Your task to perform on an android device: Clear the cart on ebay. Add "bose soundlink mini" to the cart on ebay, then select checkout. Image 0: 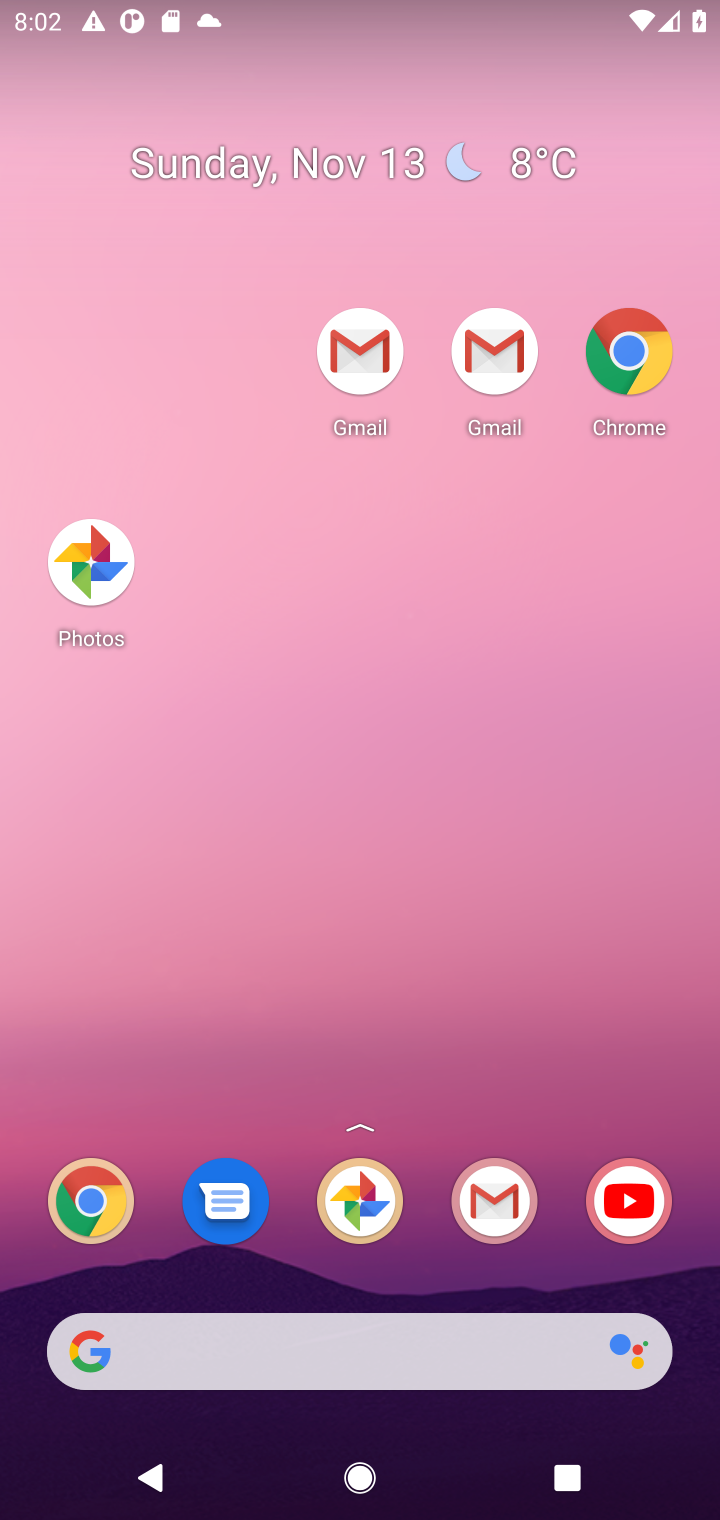
Step 0: drag from (440, 1277) to (599, 19)
Your task to perform on an android device: Clear the cart on ebay. Add "bose soundlink mini" to the cart on ebay, then select checkout. Image 1: 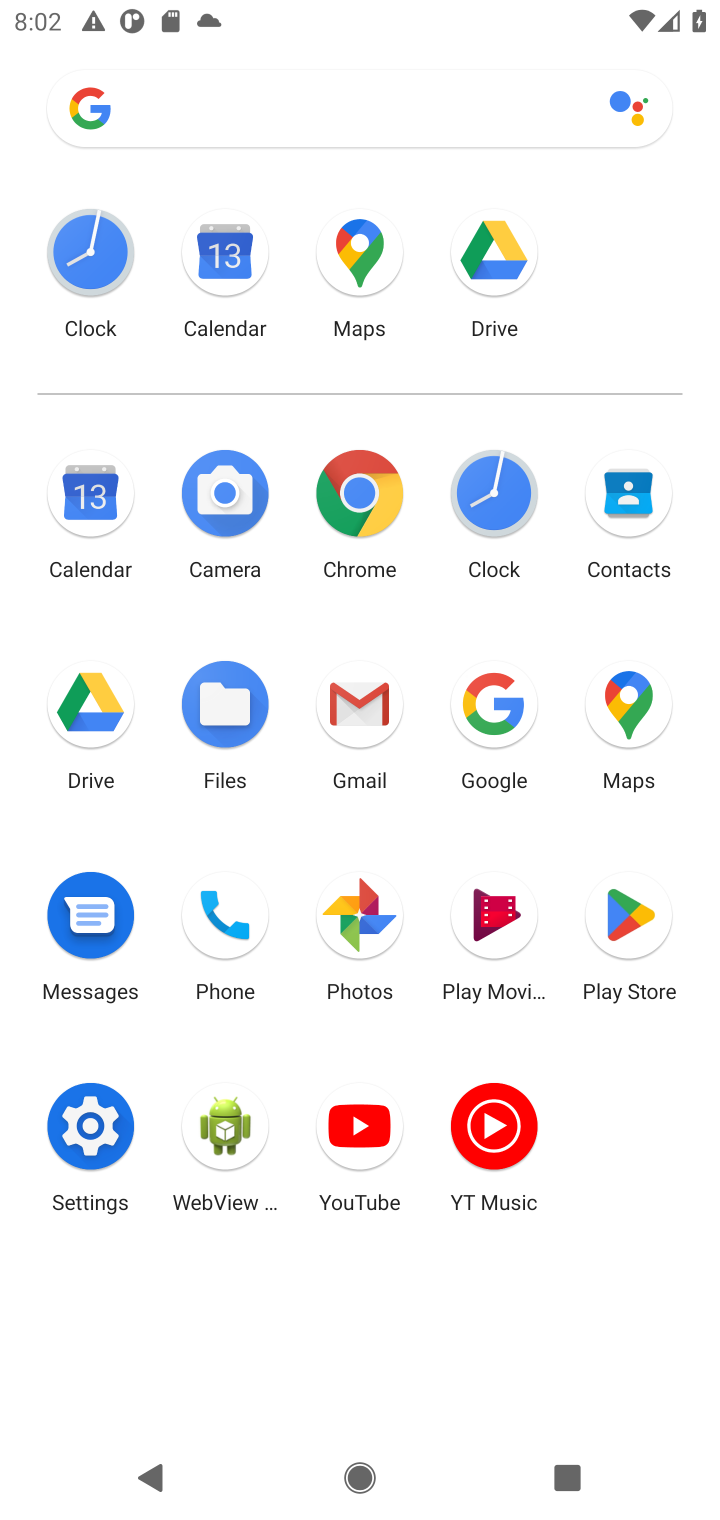
Step 1: click (338, 492)
Your task to perform on an android device: Clear the cart on ebay. Add "bose soundlink mini" to the cart on ebay, then select checkout. Image 2: 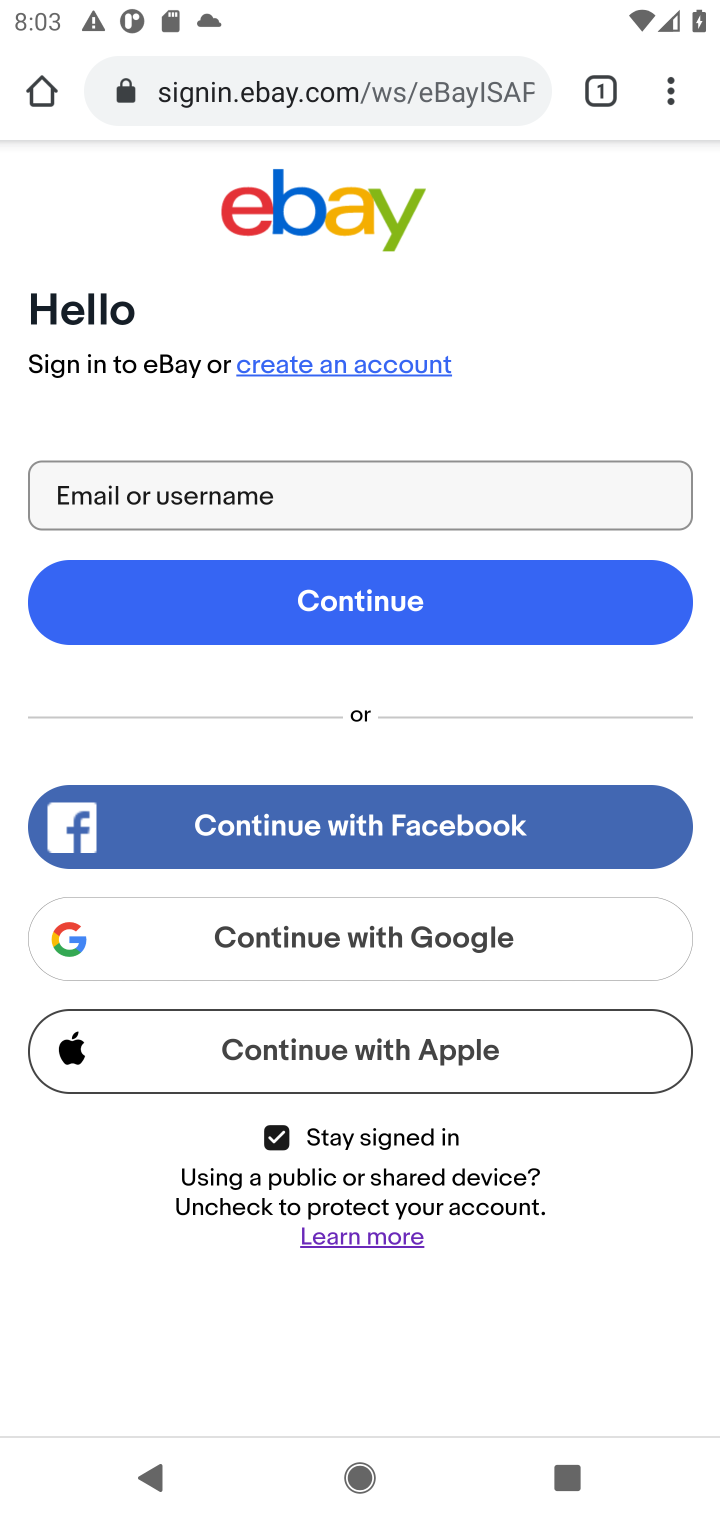
Step 2: click (454, 96)
Your task to perform on an android device: Clear the cart on ebay. Add "bose soundlink mini" to the cart on ebay, then select checkout. Image 3: 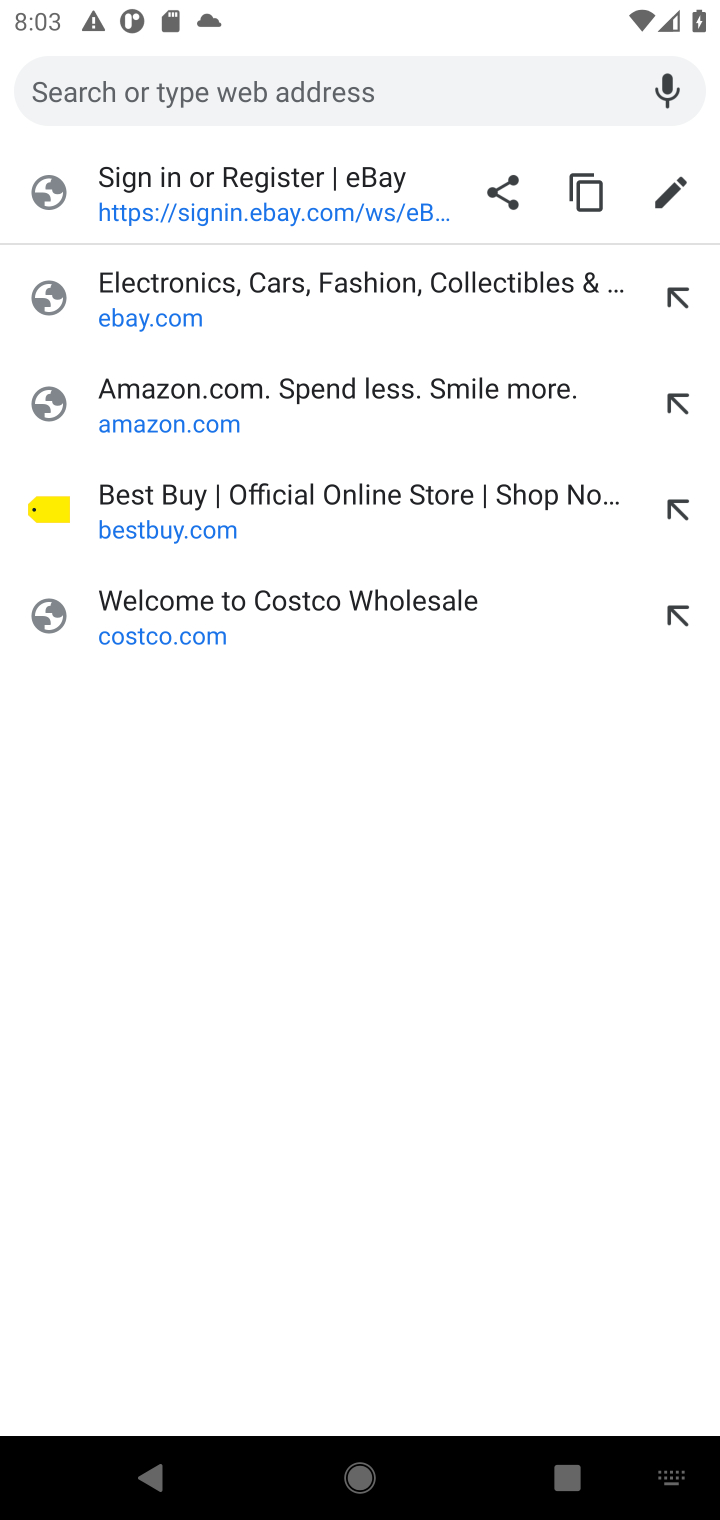
Step 3: type "ebay.com"
Your task to perform on an android device: Clear the cart on ebay. Add "bose soundlink mini" to the cart on ebay, then select checkout. Image 4: 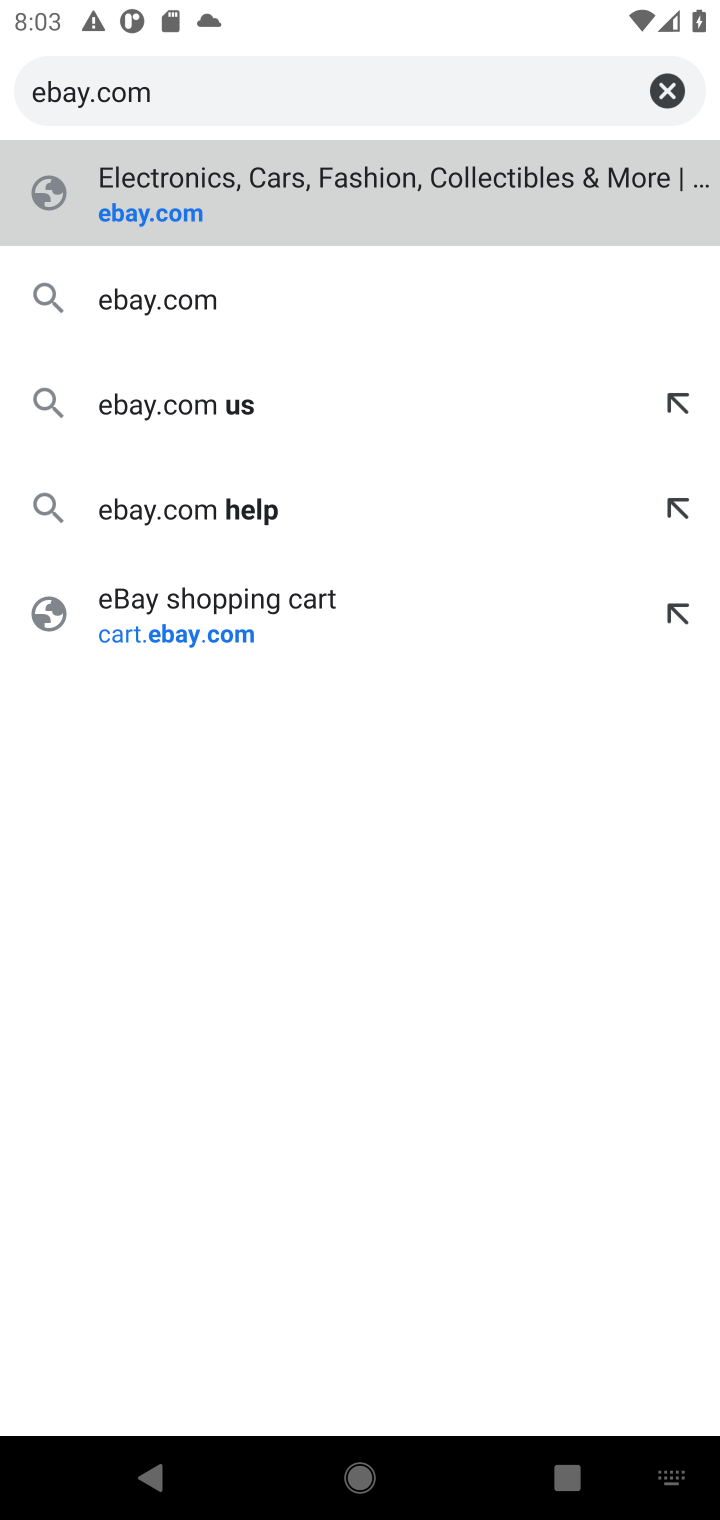
Step 4: press enter
Your task to perform on an android device: Clear the cart on ebay. Add "bose soundlink mini" to the cart on ebay, then select checkout. Image 5: 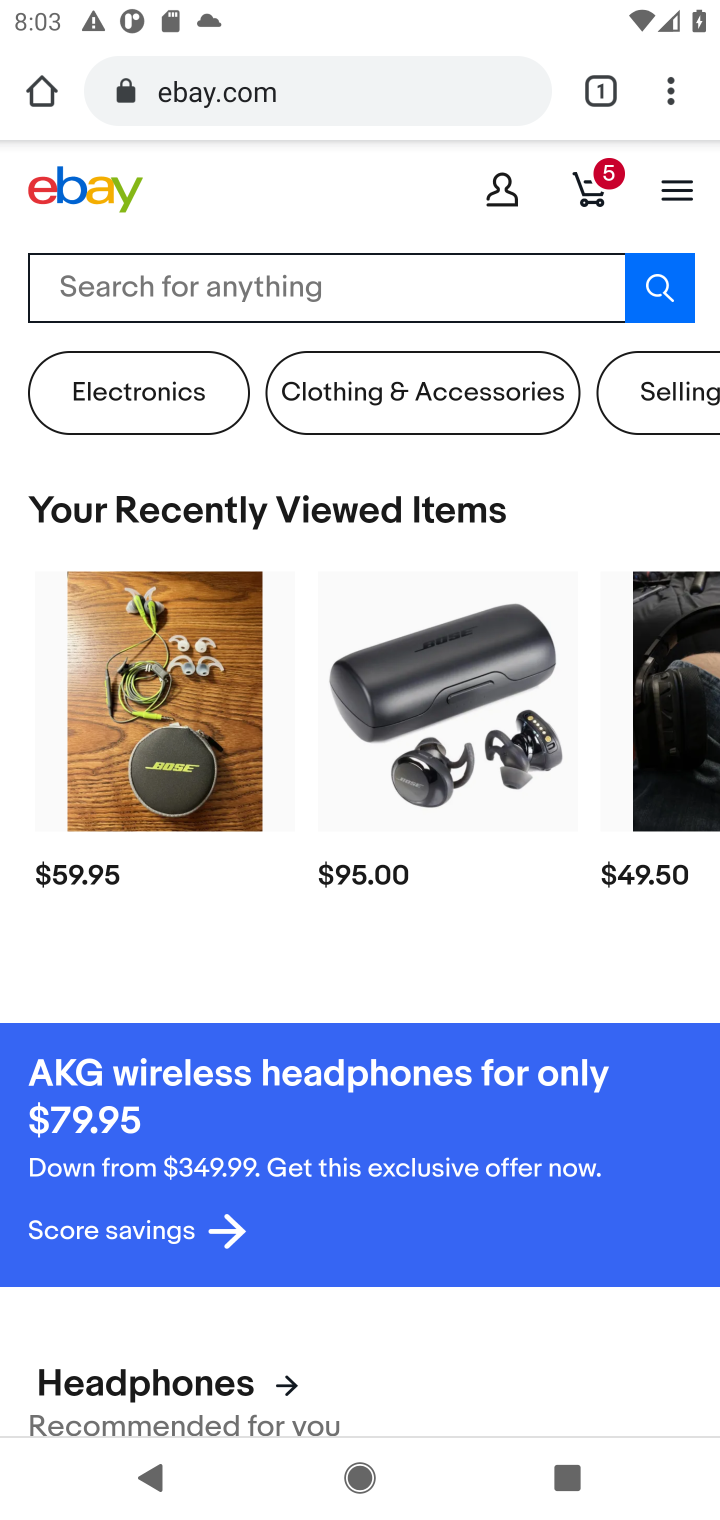
Step 5: click (605, 188)
Your task to perform on an android device: Clear the cart on ebay. Add "bose soundlink mini" to the cart on ebay, then select checkout. Image 6: 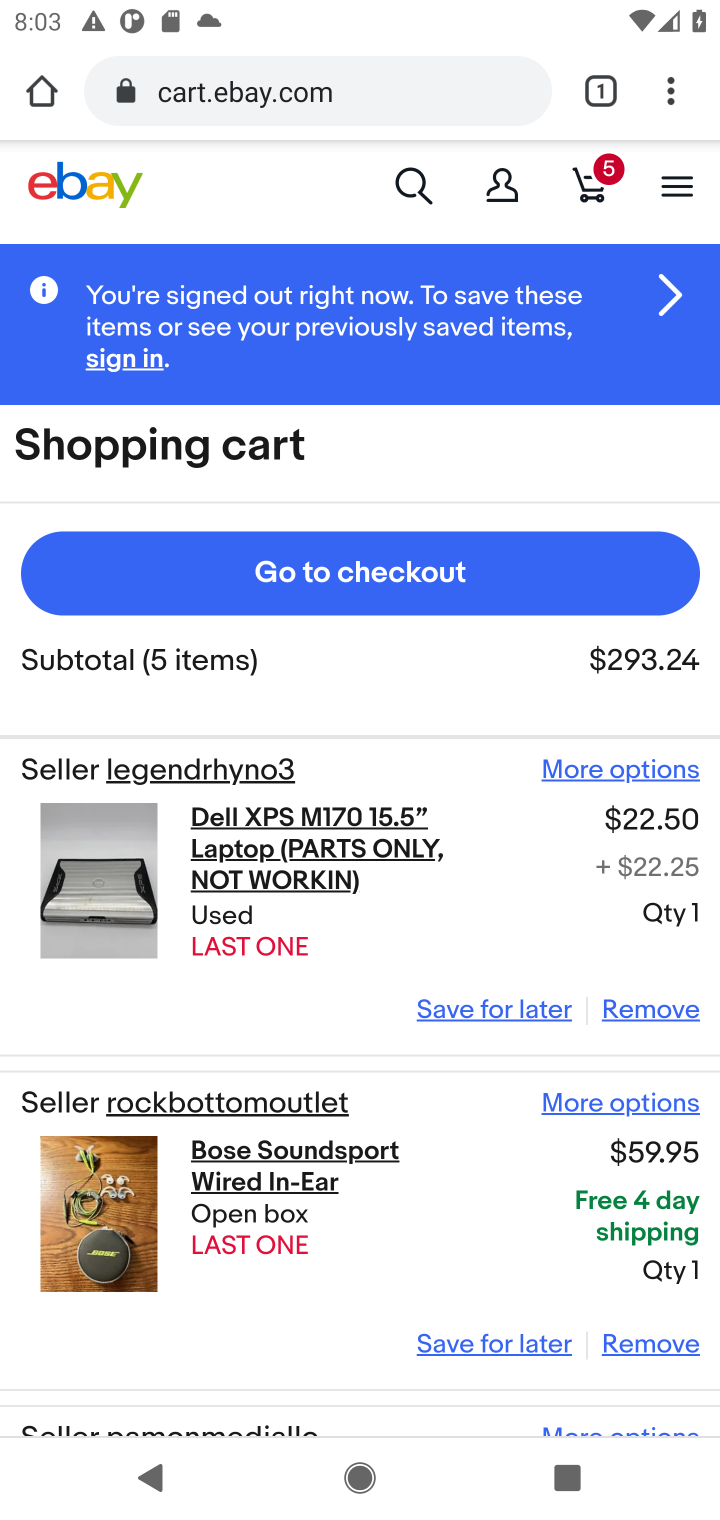
Step 6: click (636, 1013)
Your task to perform on an android device: Clear the cart on ebay. Add "bose soundlink mini" to the cart on ebay, then select checkout. Image 7: 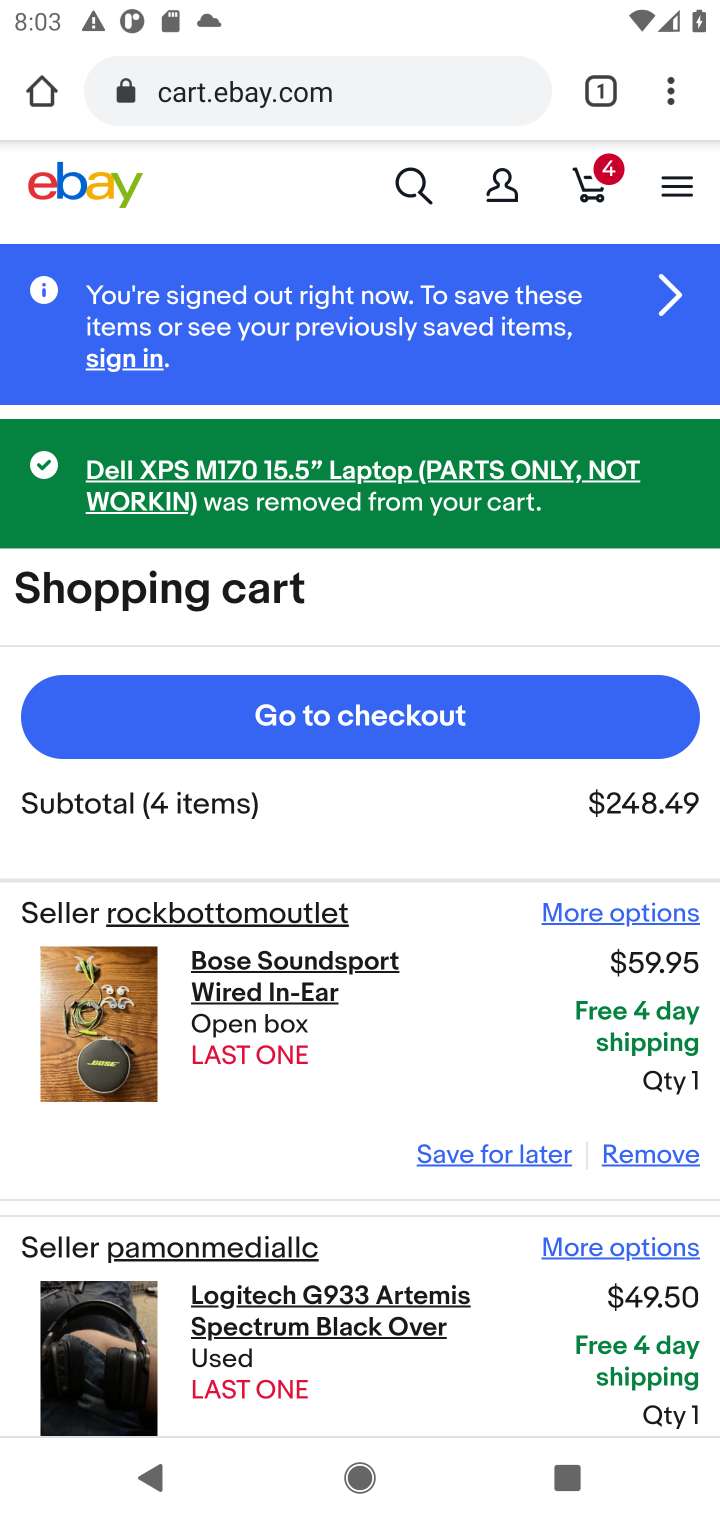
Step 7: click (673, 1146)
Your task to perform on an android device: Clear the cart on ebay. Add "bose soundlink mini" to the cart on ebay, then select checkout. Image 8: 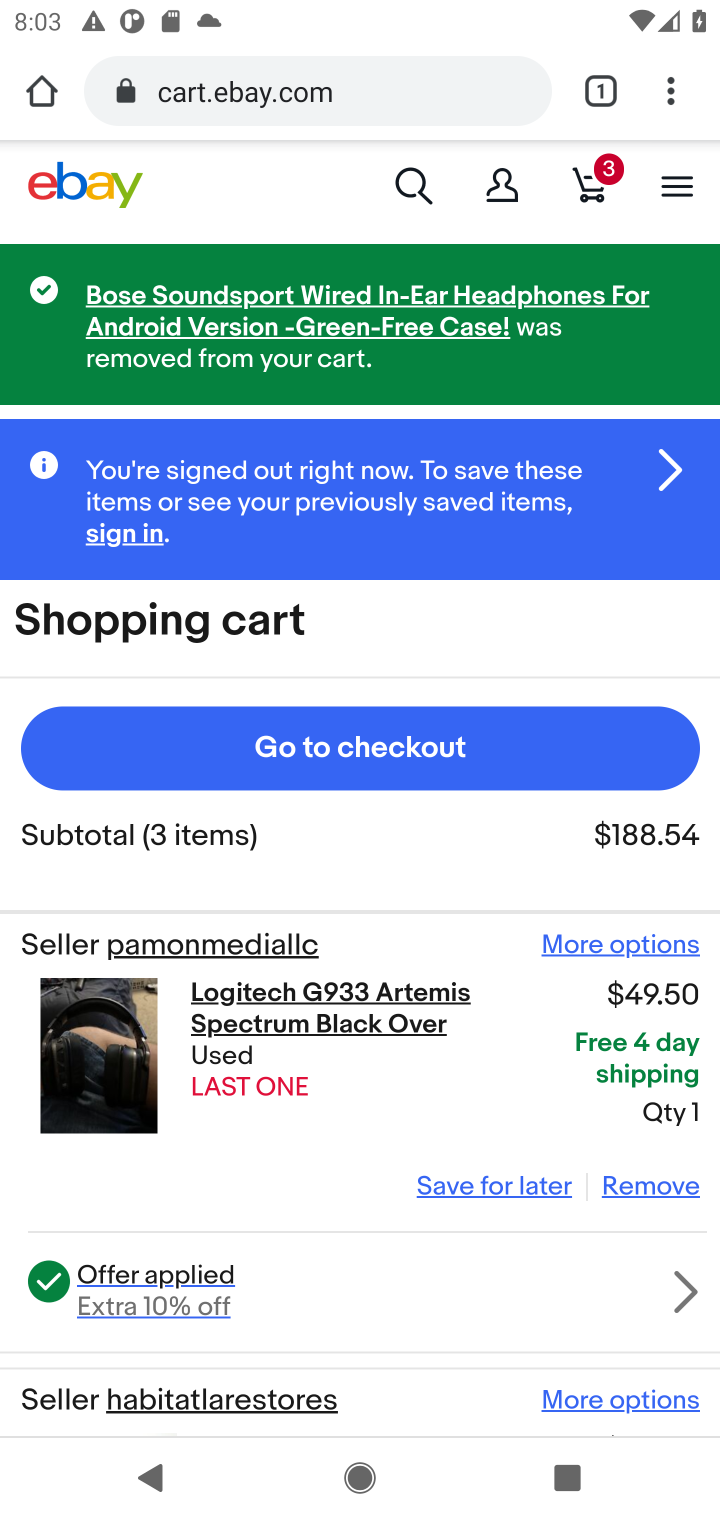
Step 8: click (658, 1184)
Your task to perform on an android device: Clear the cart on ebay. Add "bose soundlink mini" to the cart on ebay, then select checkout. Image 9: 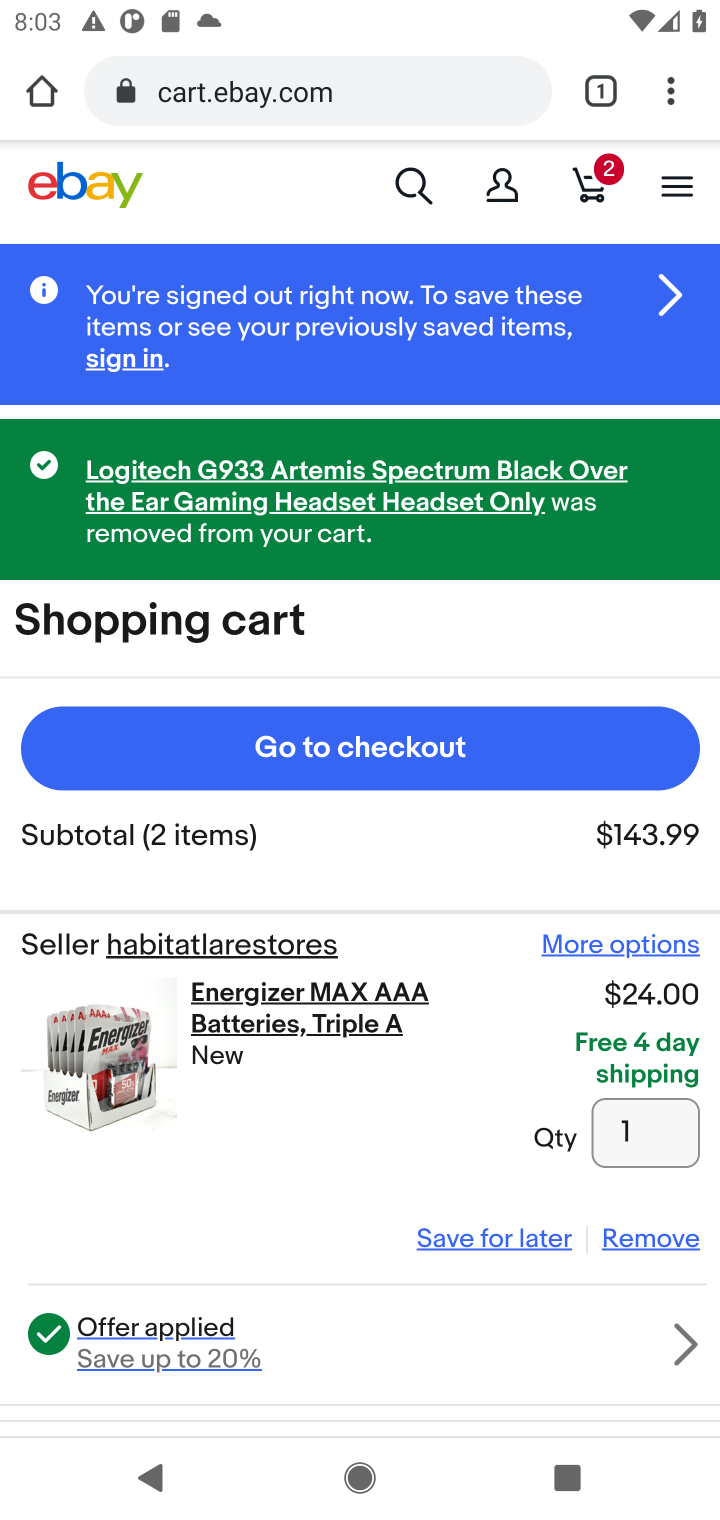
Step 9: click (666, 1227)
Your task to perform on an android device: Clear the cart on ebay. Add "bose soundlink mini" to the cart on ebay, then select checkout. Image 10: 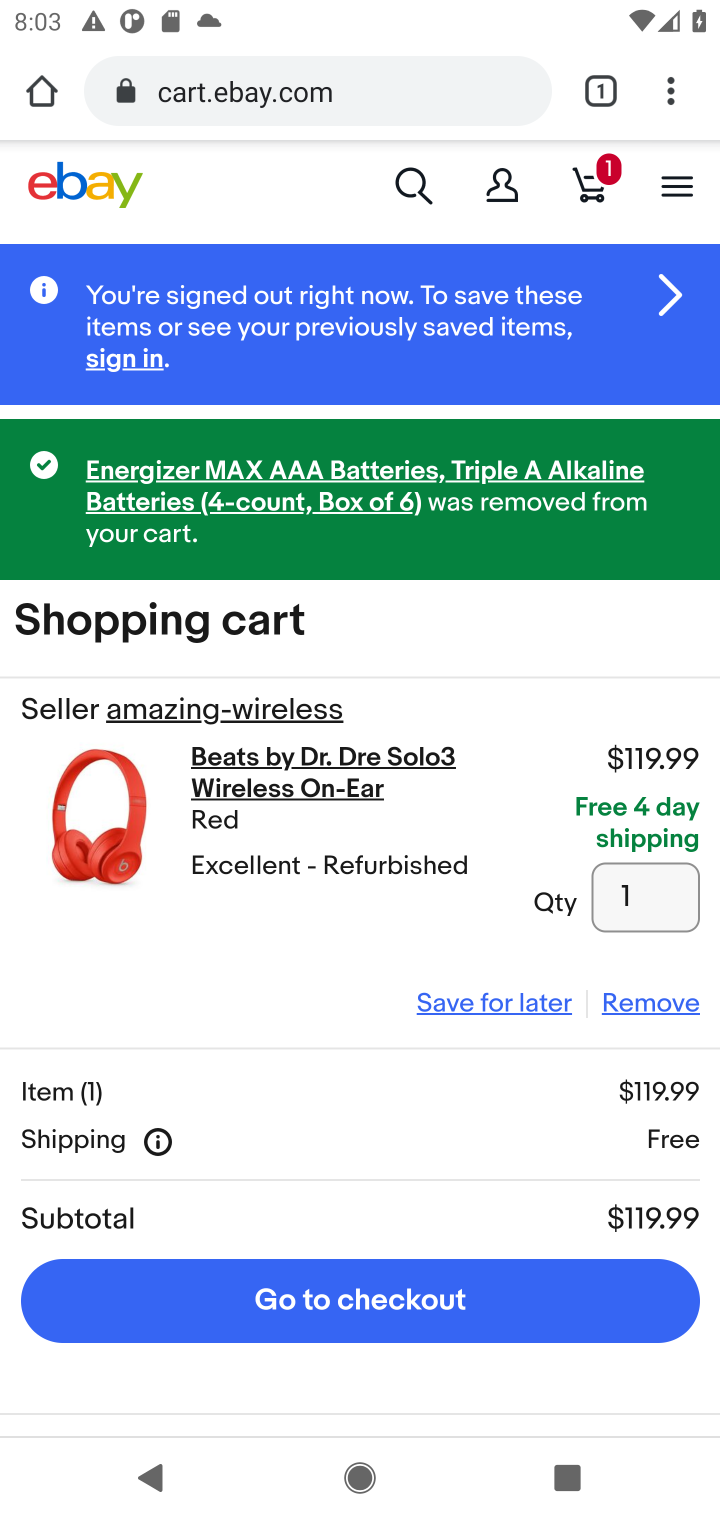
Step 10: click (624, 1016)
Your task to perform on an android device: Clear the cart on ebay. Add "bose soundlink mini" to the cart on ebay, then select checkout. Image 11: 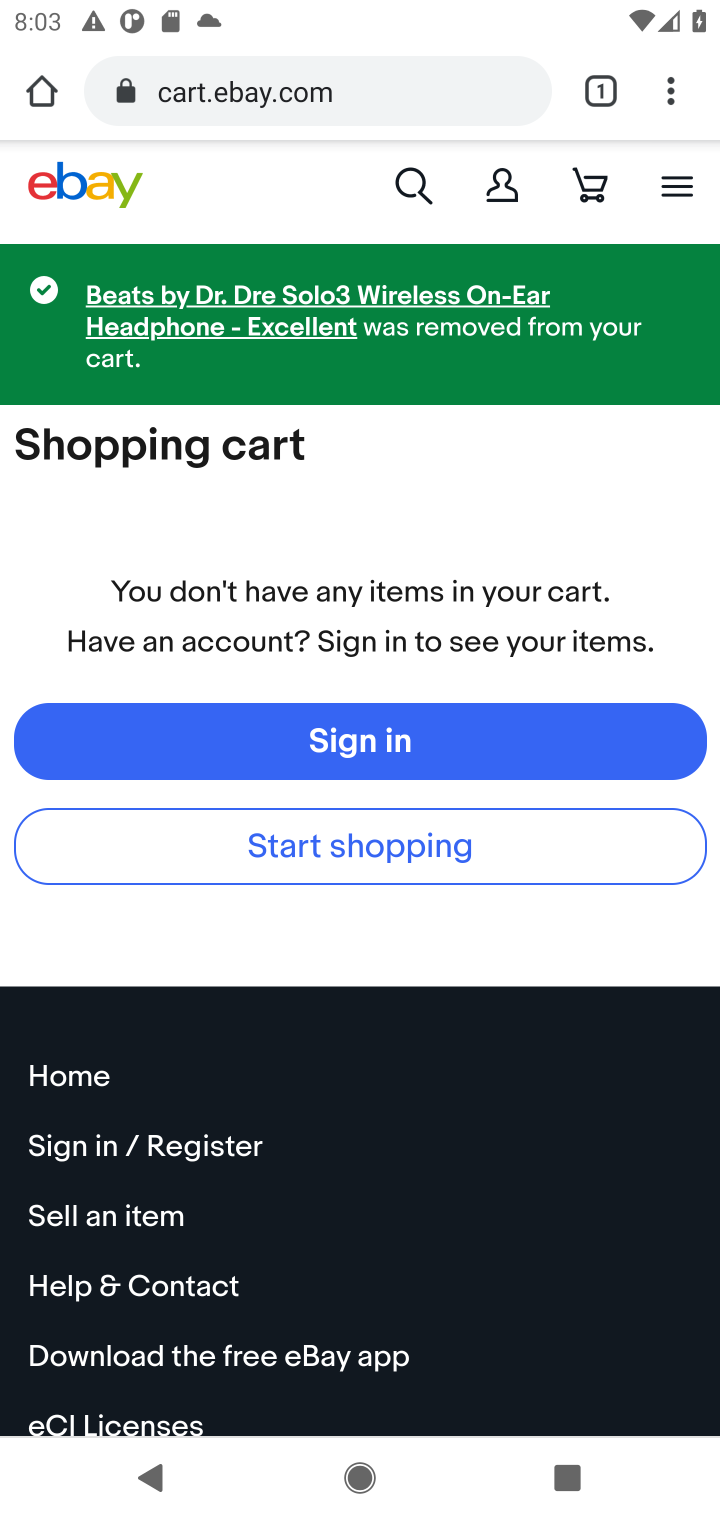
Step 11: click (422, 184)
Your task to perform on an android device: Clear the cart on ebay. Add "bose soundlink mini" to the cart on ebay, then select checkout. Image 12: 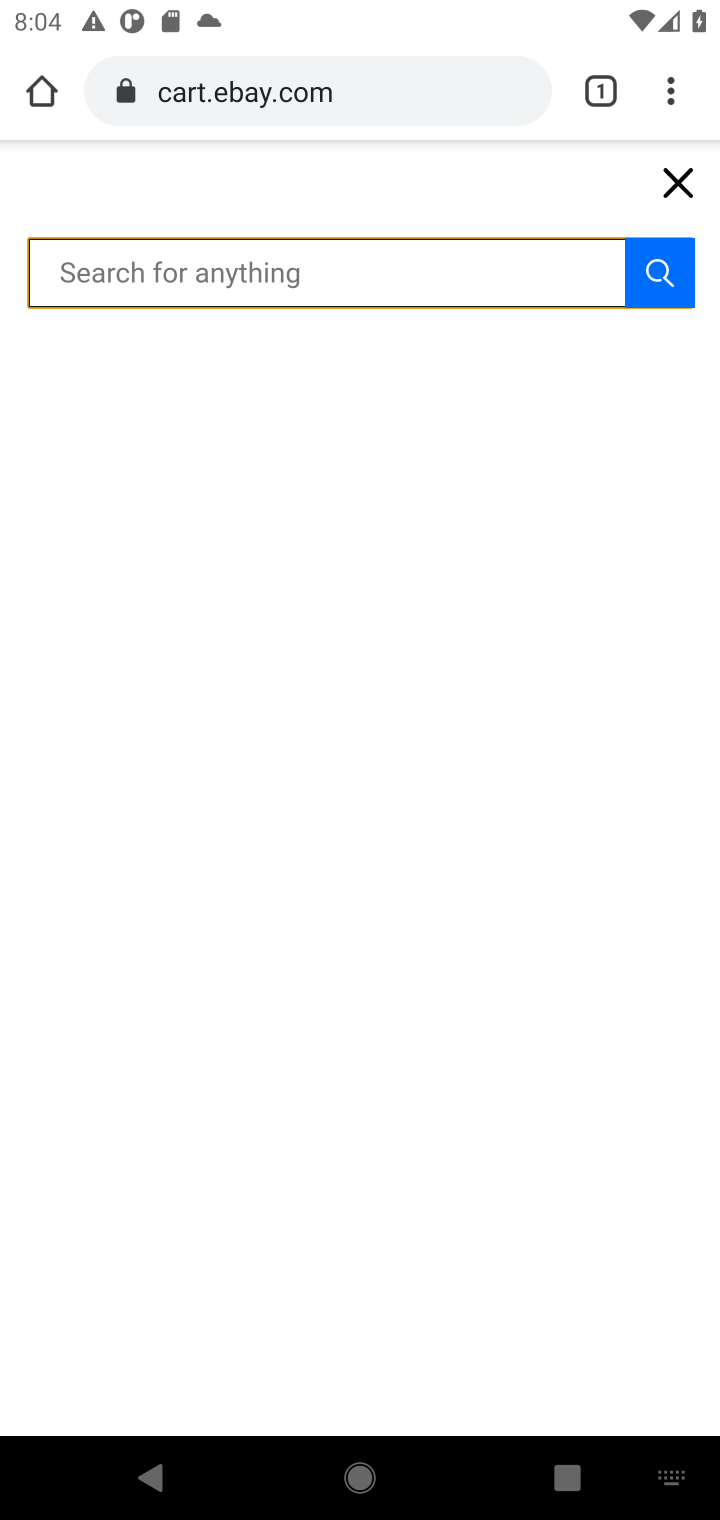
Step 12: type "bose soundlink mini"
Your task to perform on an android device: Clear the cart on ebay. Add "bose soundlink mini" to the cart on ebay, then select checkout. Image 13: 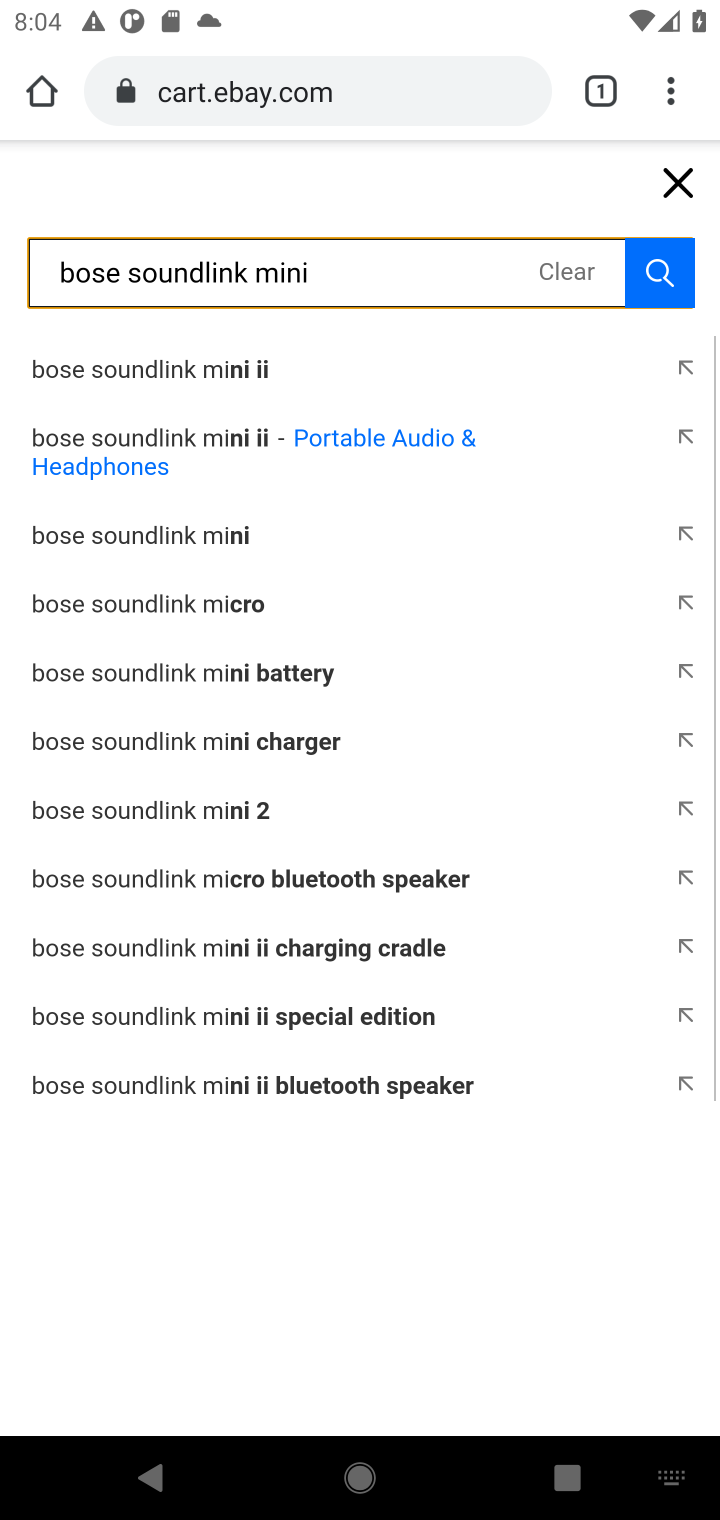
Step 13: press enter
Your task to perform on an android device: Clear the cart on ebay. Add "bose soundlink mini" to the cart on ebay, then select checkout. Image 14: 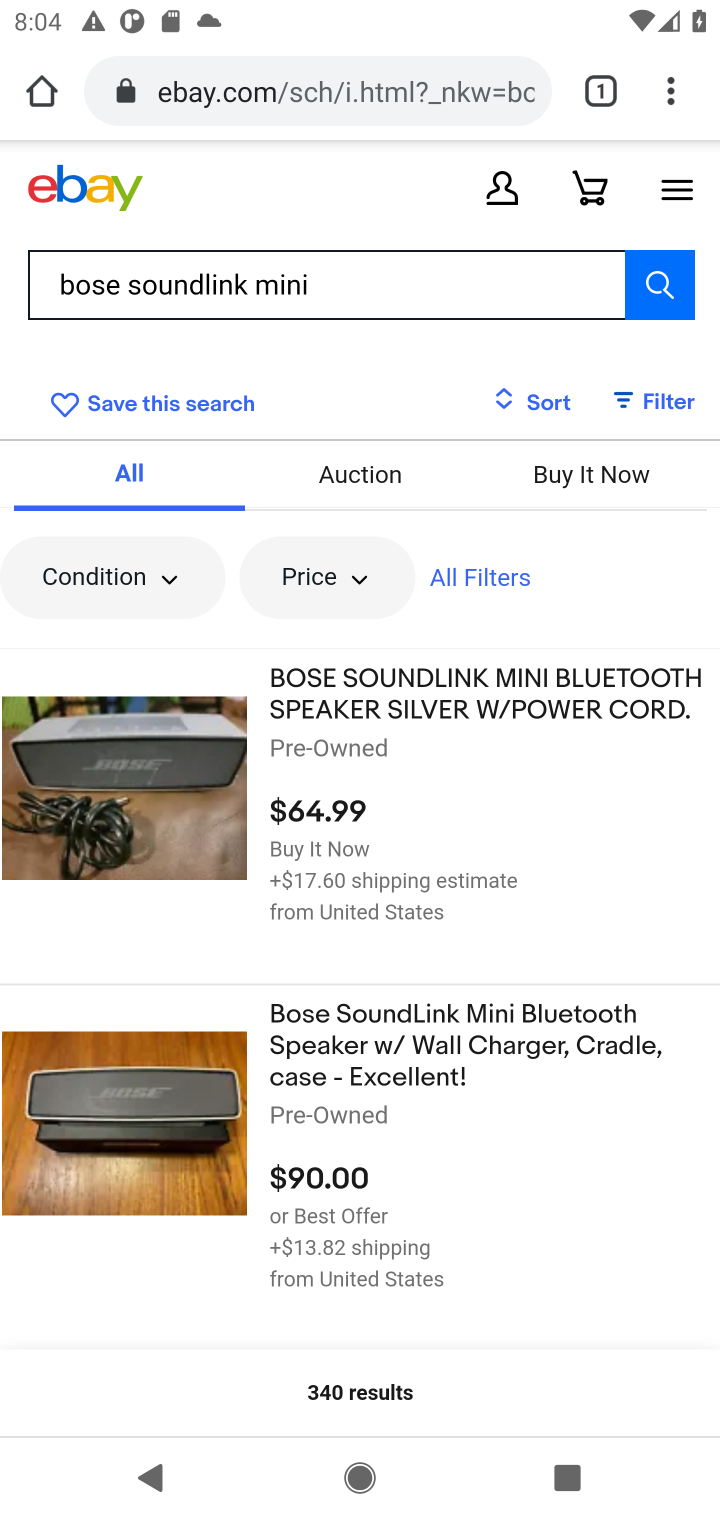
Step 14: click (483, 706)
Your task to perform on an android device: Clear the cart on ebay. Add "bose soundlink mini" to the cart on ebay, then select checkout. Image 15: 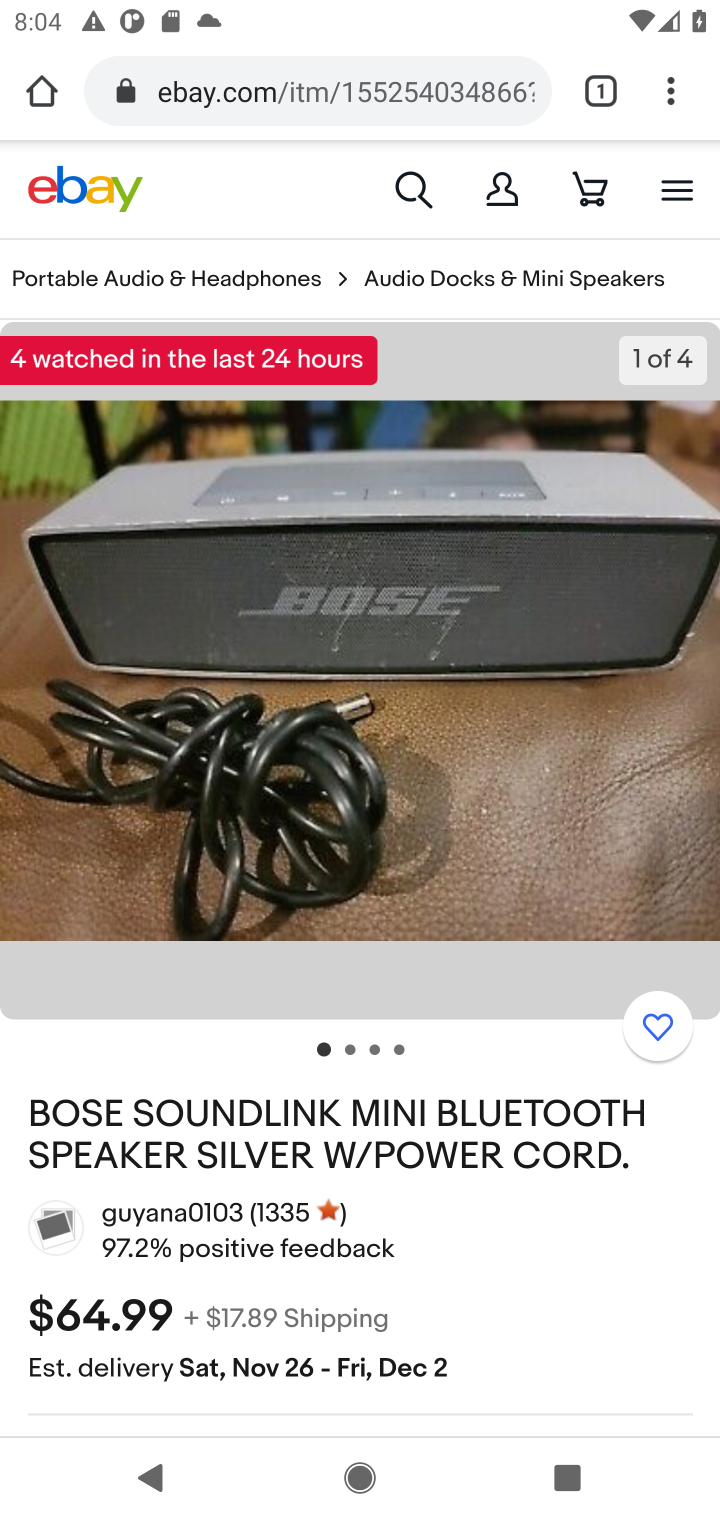
Step 15: drag from (423, 1166) to (410, 270)
Your task to perform on an android device: Clear the cart on ebay. Add "bose soundlink mini" to the cart on ebay, then select checkout. Image 16: 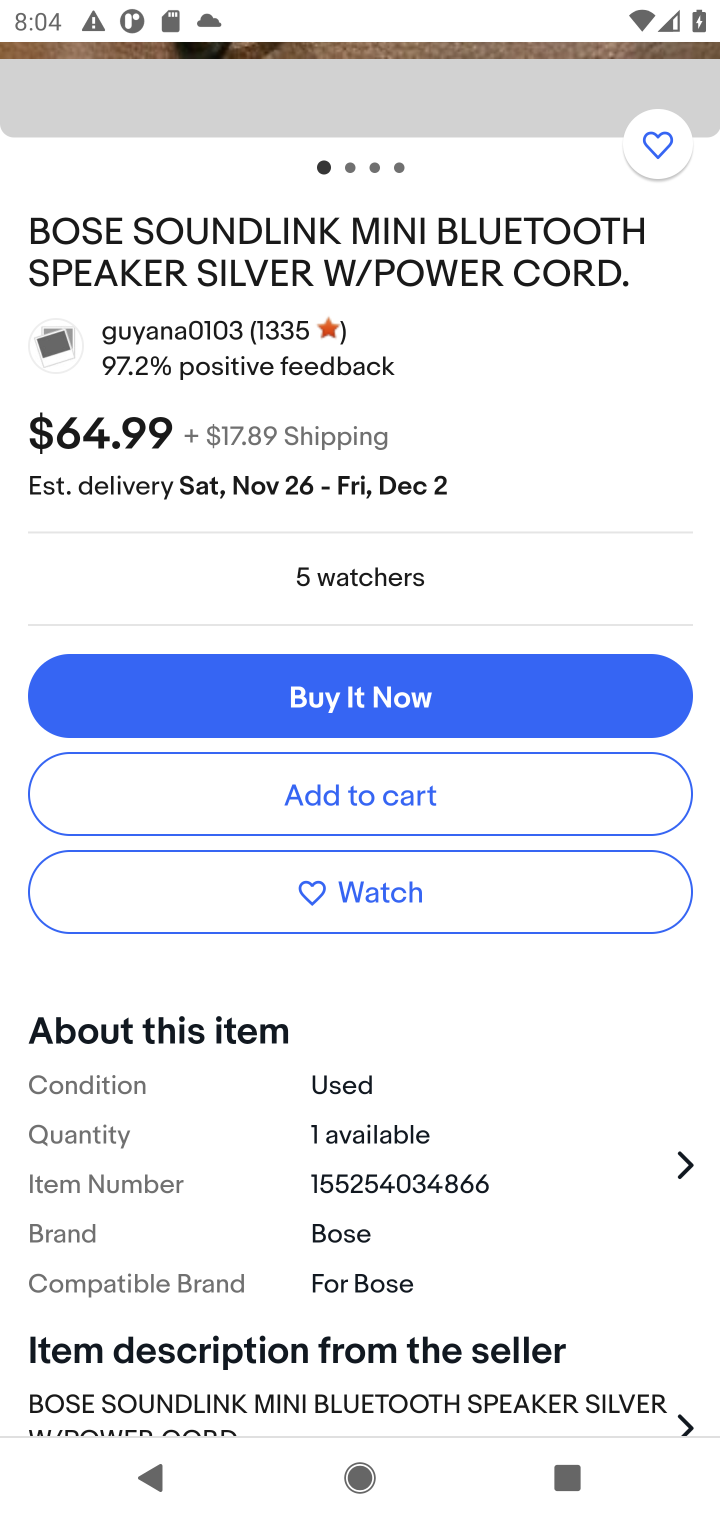
Step 16: click (470, 789)
Your task to perform on an android device: Clear the cart on ebay. Add "bose soundlink mini" to the cart on ebay, then select checkout. Image 17: 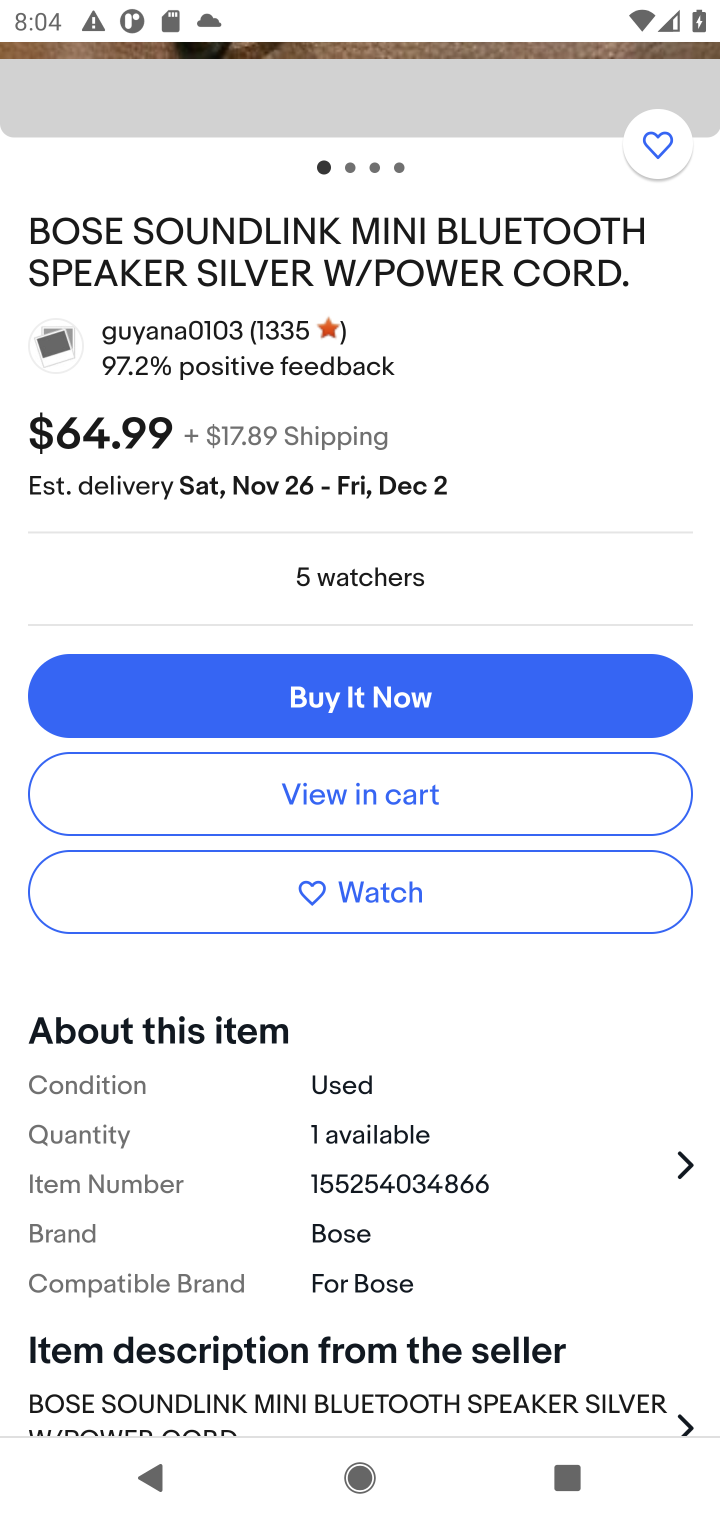
Step 17: click (493, 791)
Your task to perform on an android device: Clear the cart on ebay. Add "bose soundlink mini" to the cart on ebay, then select checkout. Image 18: 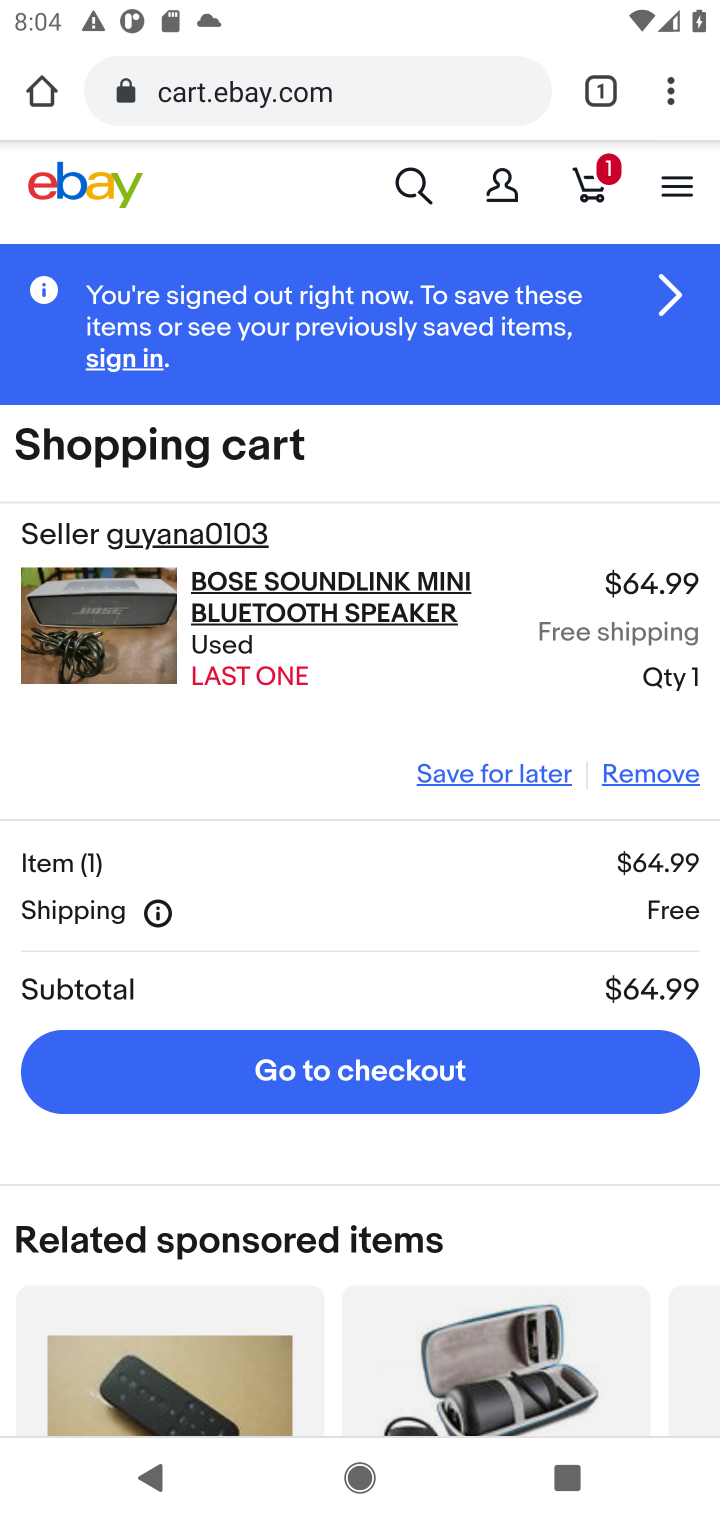
Step 18: click (527, 1070)
Your task to perform on an android device: Clear the cart on ebay. Add "bose soundlink mini" to the cart on ebay, then select checkout. Image 19: 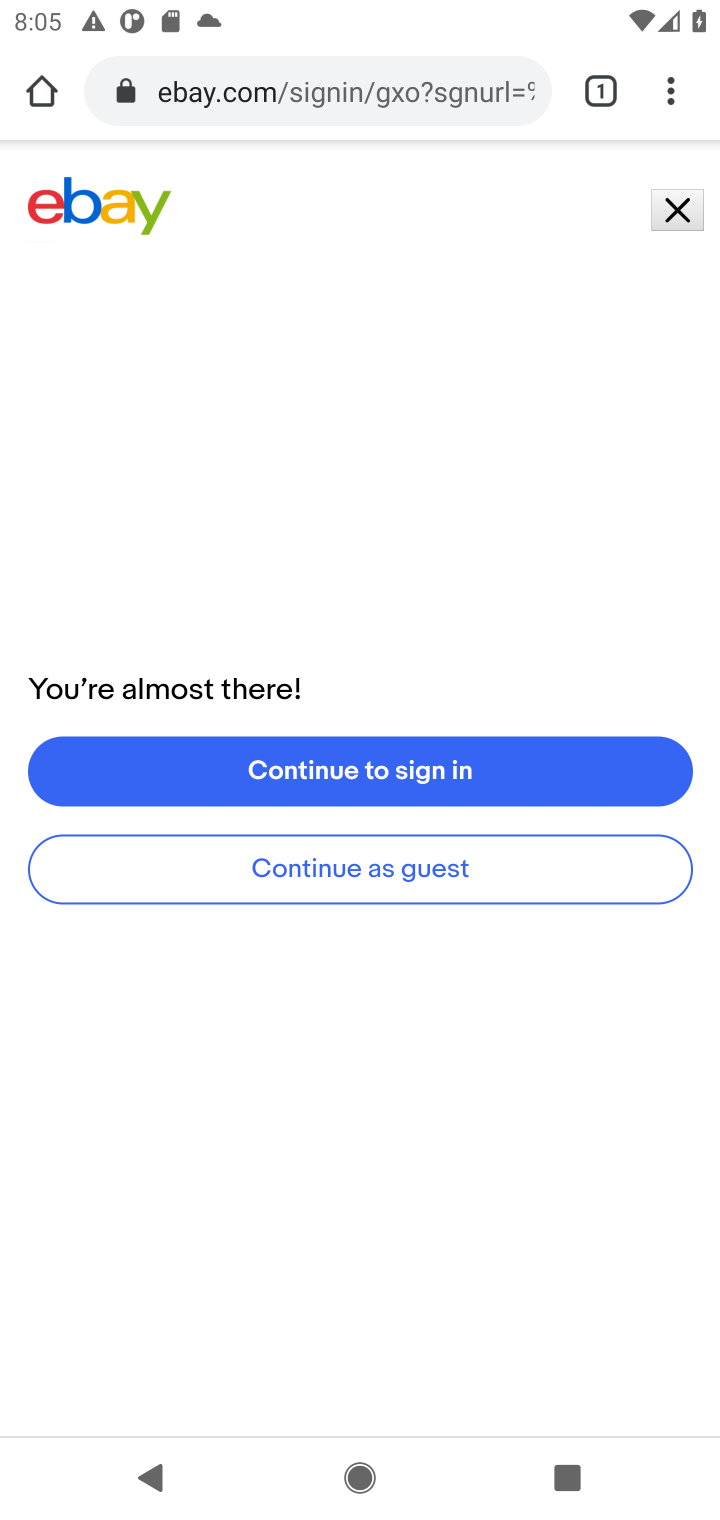
Step 19: task complete